Your task to perform on an android device: What's the weather? Image 0: 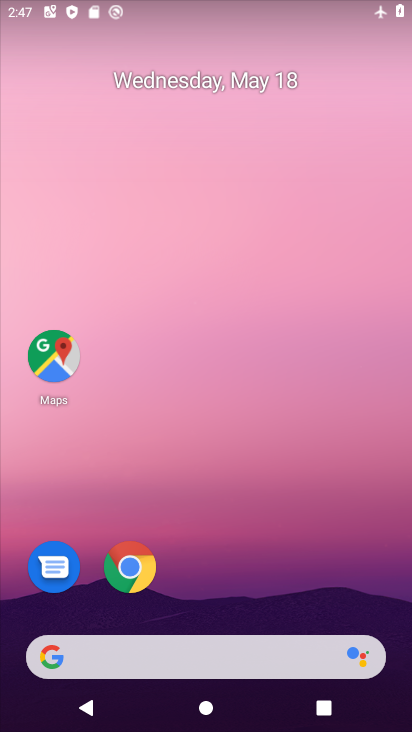
Step 0: click (149, 569)
Your task to perform on an android device: What's the weather? Image 1: 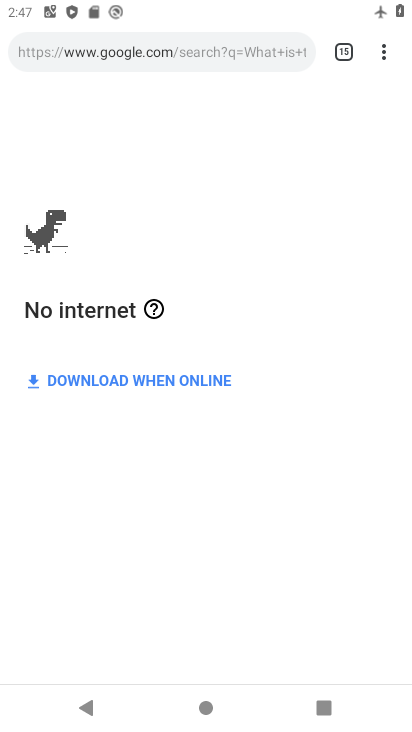
Step 1: click (390, 44)
Your task to perform on an android device: What's the weather? Image 2: 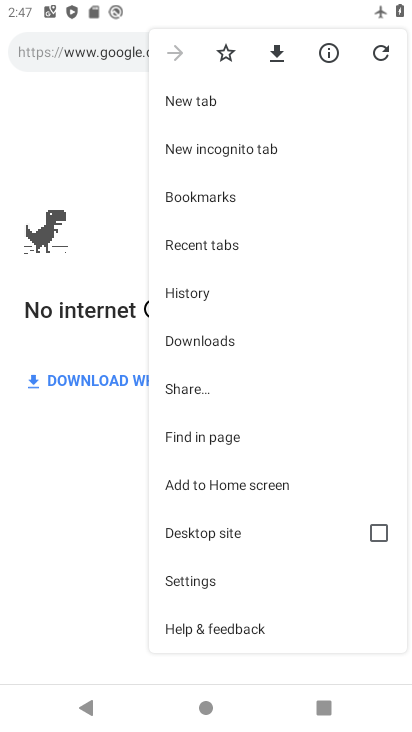
Step 2: click (173, 89)
Your task to perform on an android device: What's the weather? Image 3: 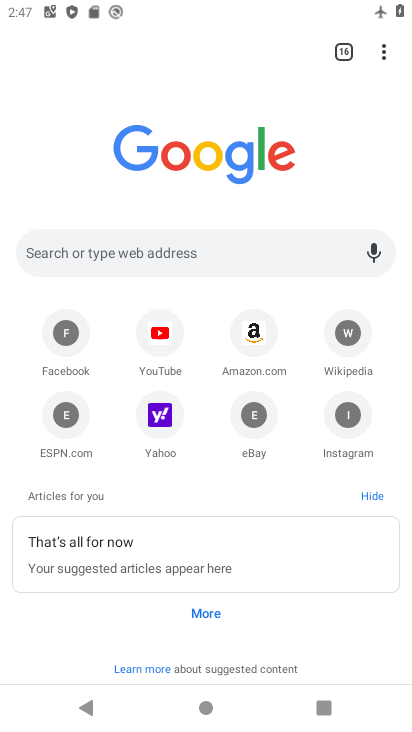
Step 3: click (204, 251)
Your task to perform on an android device: What's the weather? Image 4: 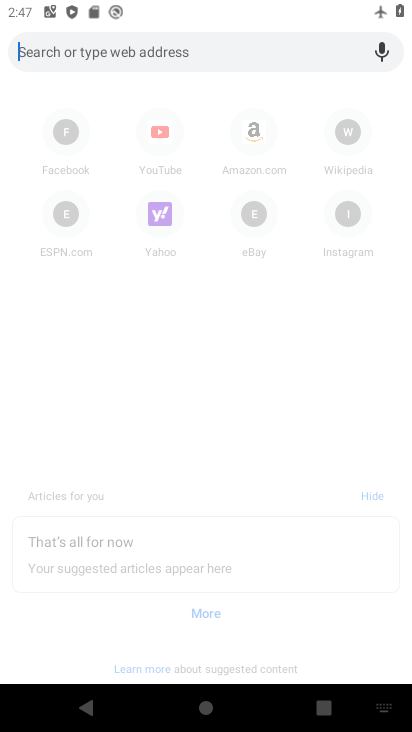
Step 4: type "What's the weather?"
Your task to perform on an android device: What's the weather? Image 5: 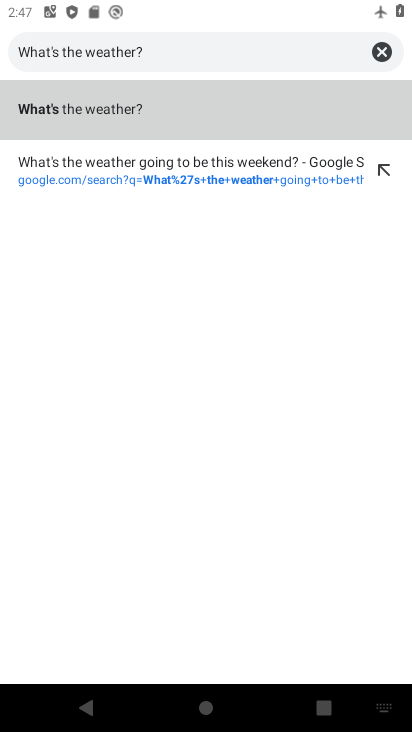
Step 5: click (161, 118)
Your task to perform on an android device: What's the weather? Image 6: 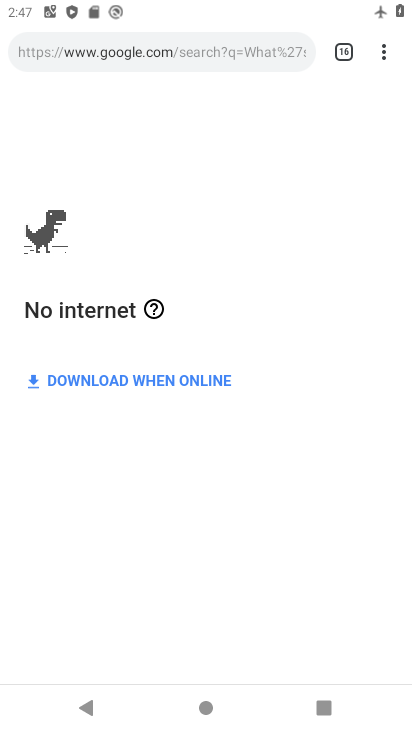
Step 6: task complete